Your task to perform on an android device: open app "Truecaller" (install if not already installed) Image 0: 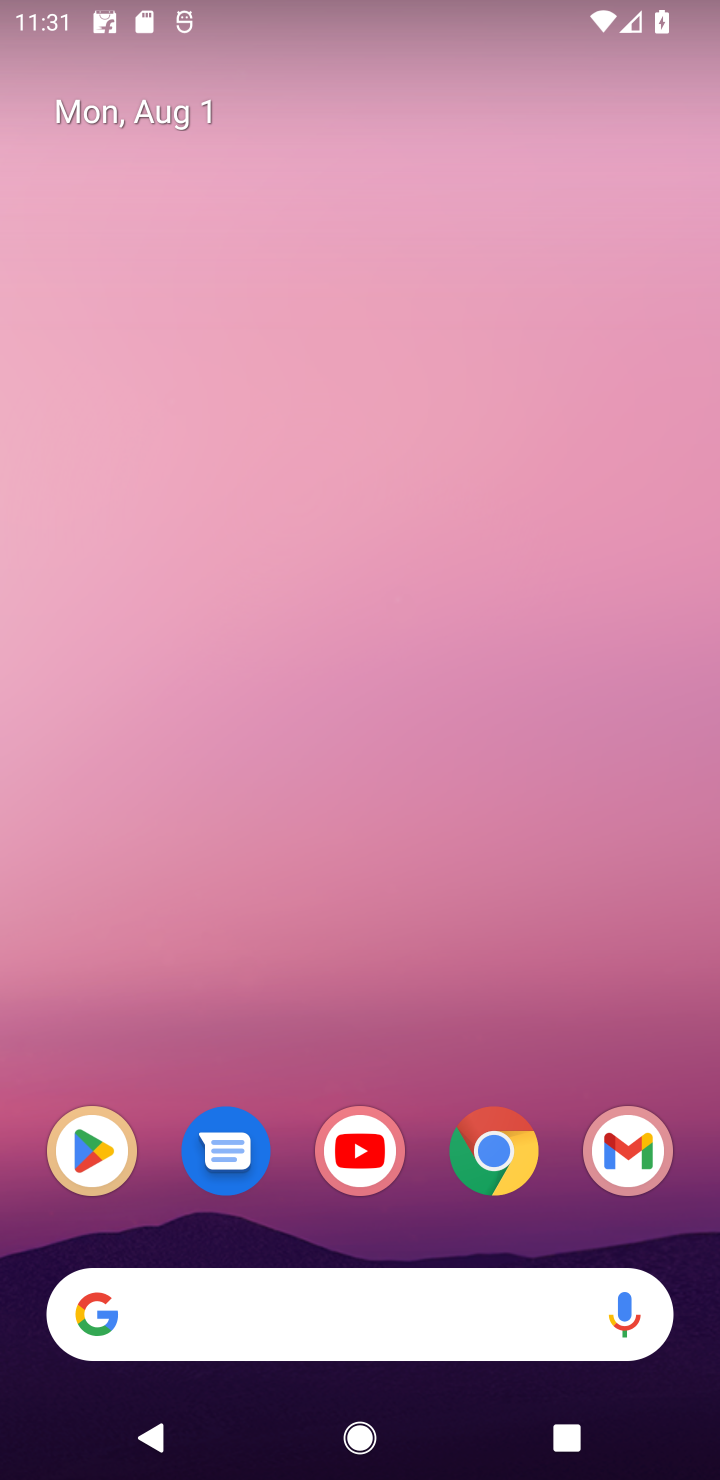
Step 0: click (99, 1161)
Your task to perform on an android device: open app "Truecaller" (install if not already installed) Image 1: 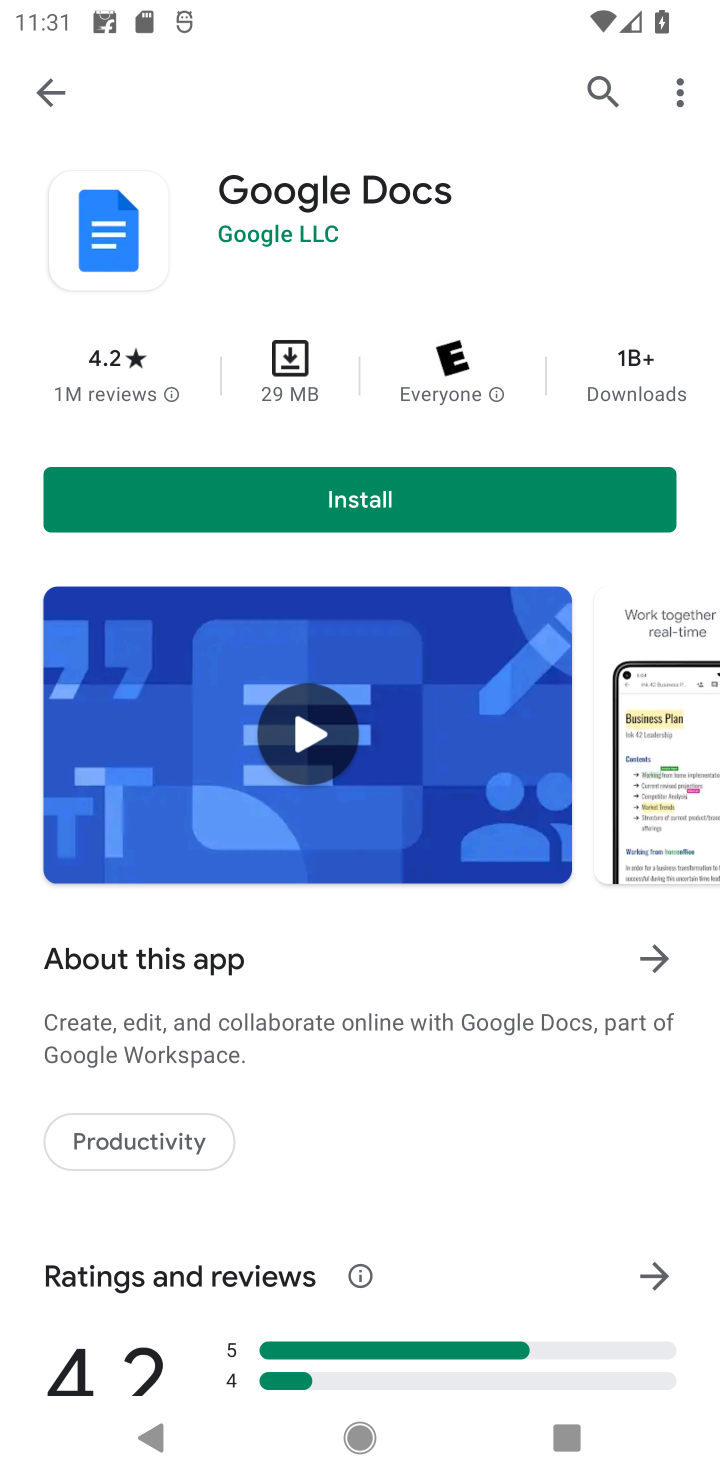
Step 1: click (591, 102)
Your task to perform on an android device: open app "Truecaller" (install if not already installed) Image 2: 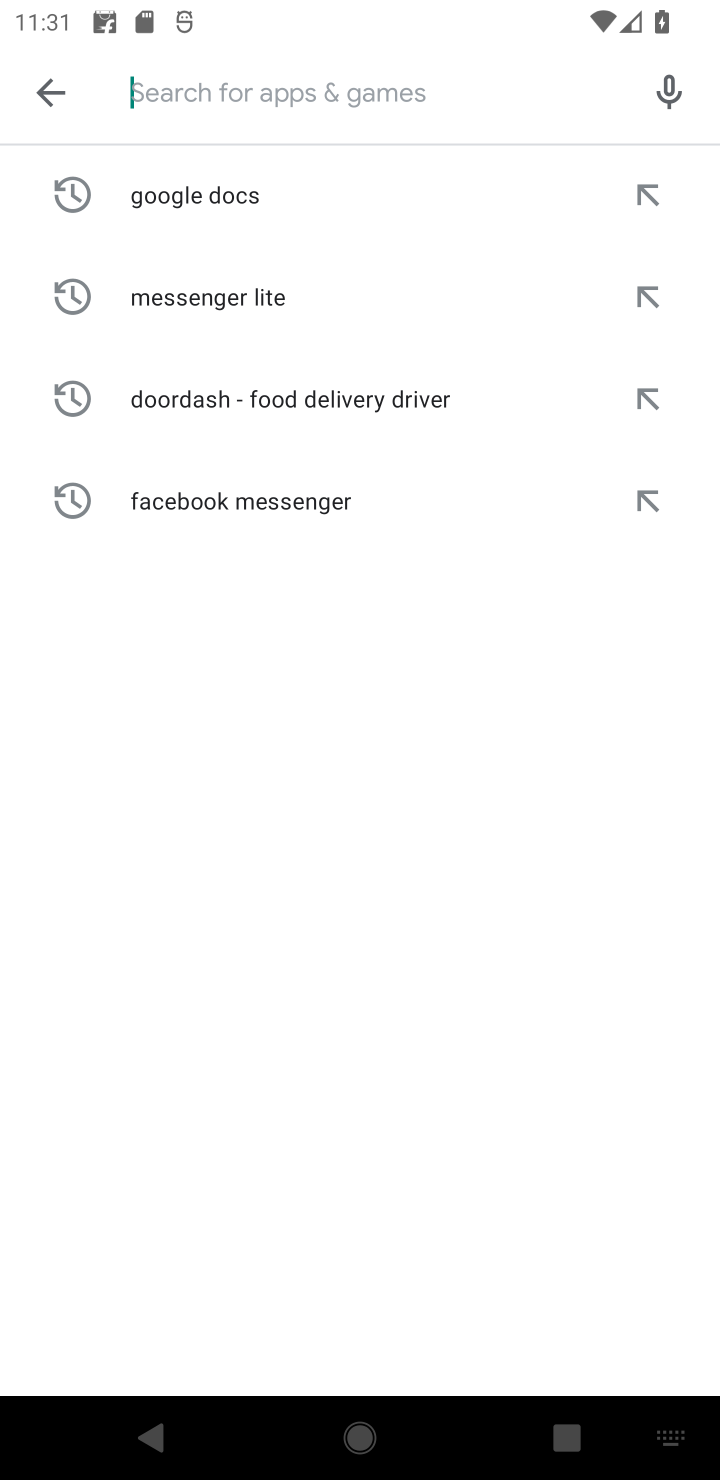
Step 2: type "Truecaller"
Your task to perform on an android device: open app "Truecaller" (install if not already installed) Image 3: 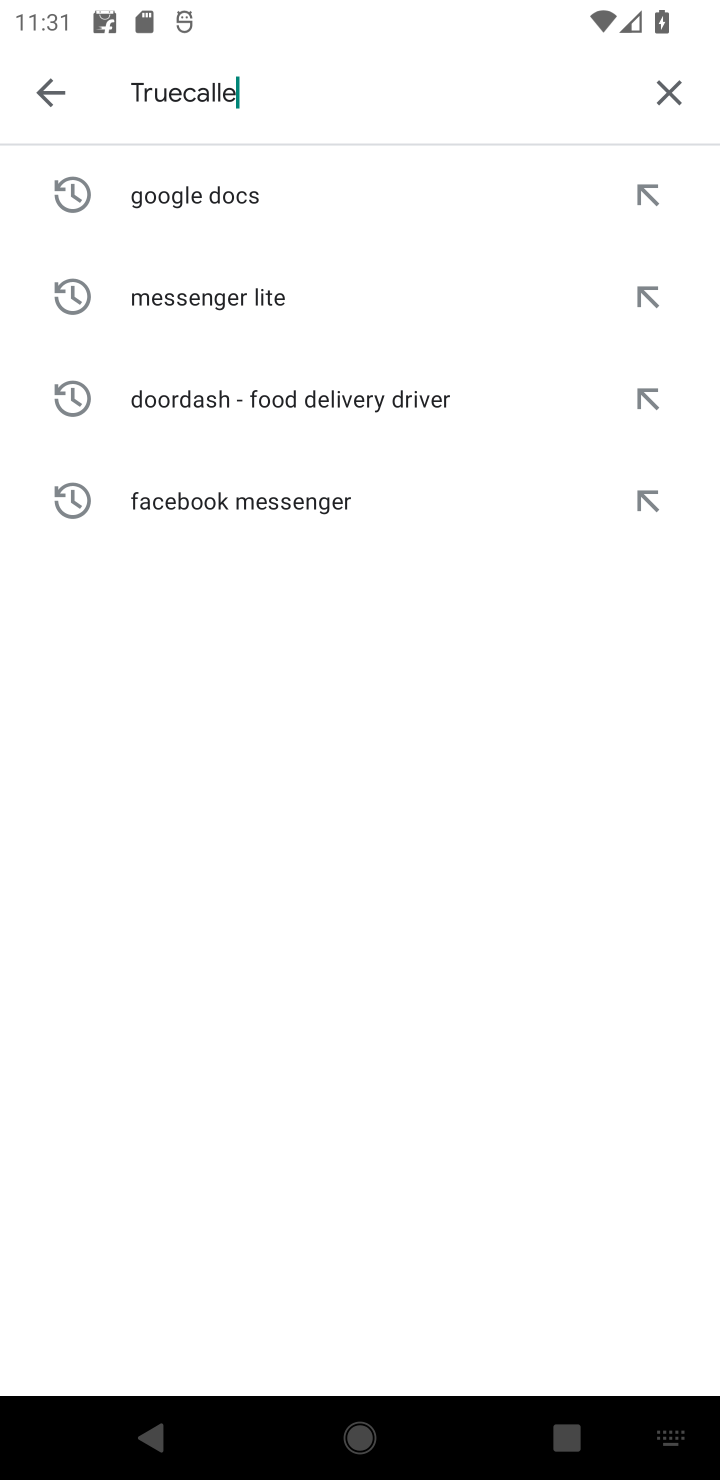
Step 3: type ""
Your task to perform on an android device: open app "Truecaller" (install if not already installed) Image 4: 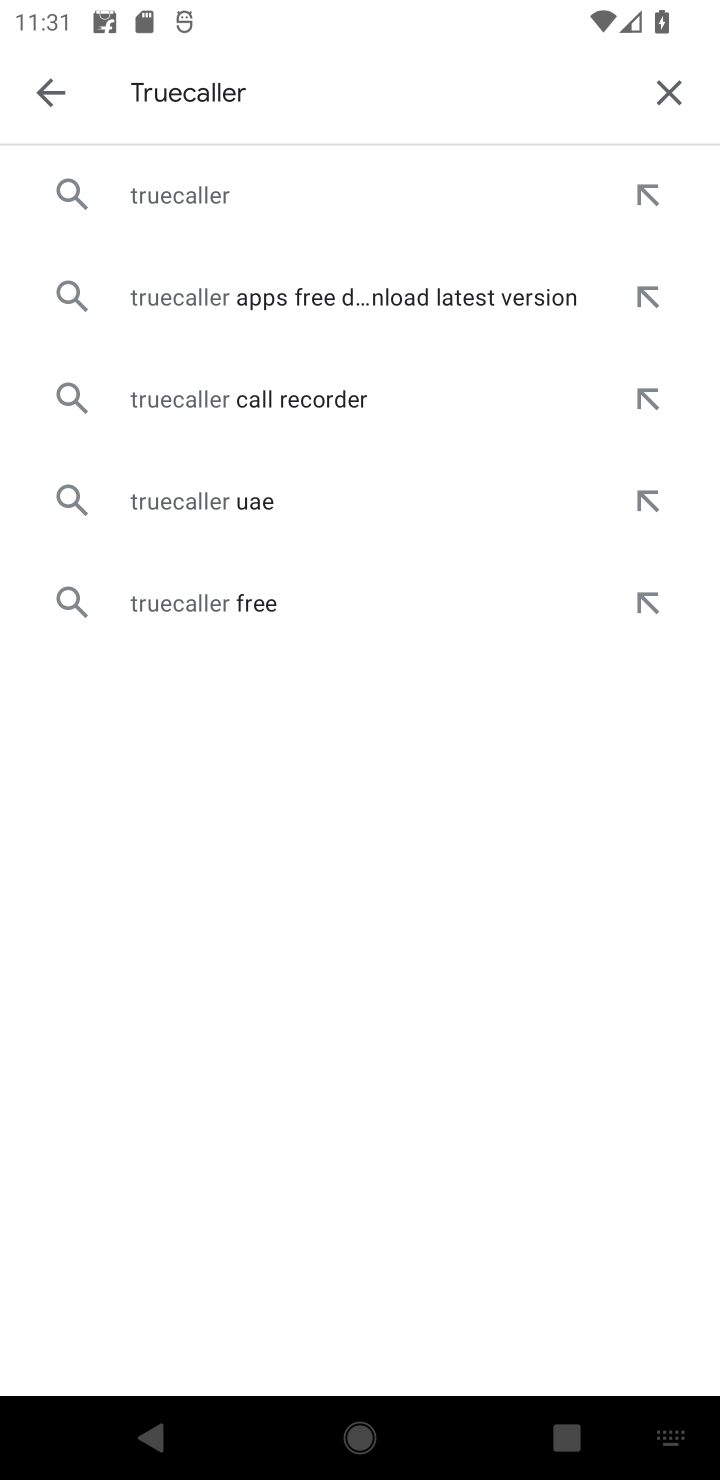
Step 4: click (278, 188)
Your task to perform on an android device: open app "Truecaller" (install if not already installed) Image 5: 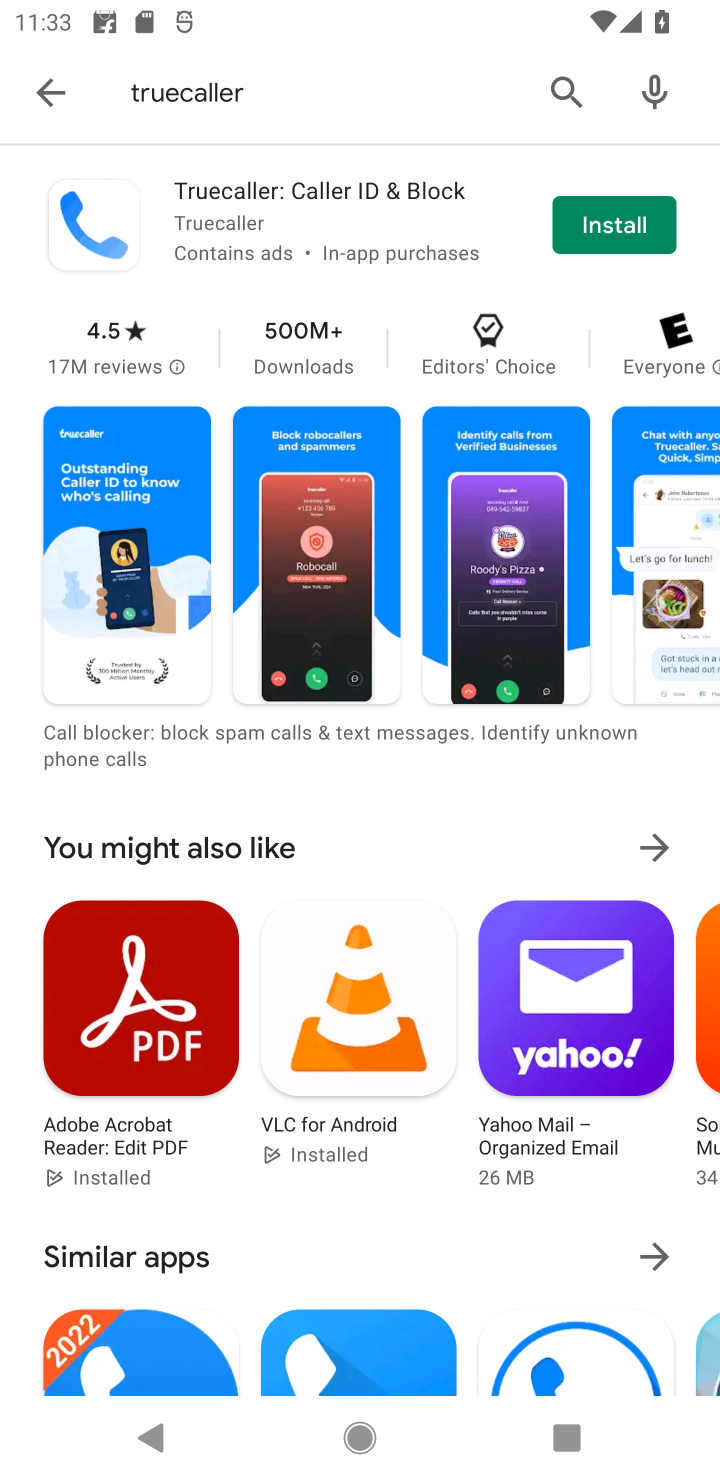
Step 5: task complete